Your task to perform on an android device: Open maps Image 0: 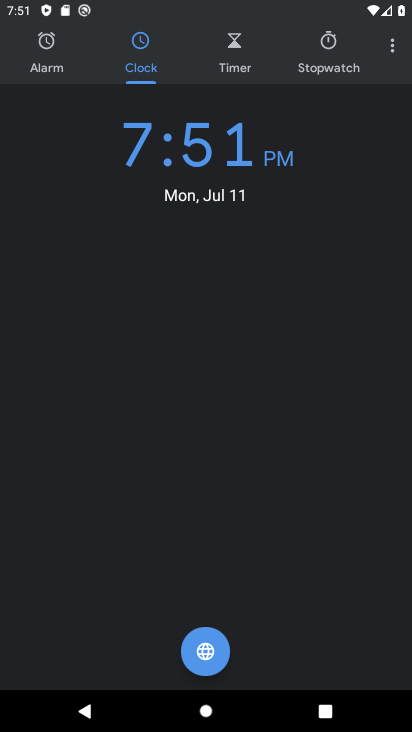
Step 0: press home button
Your task to perform on an android device: Open maps Image 1: 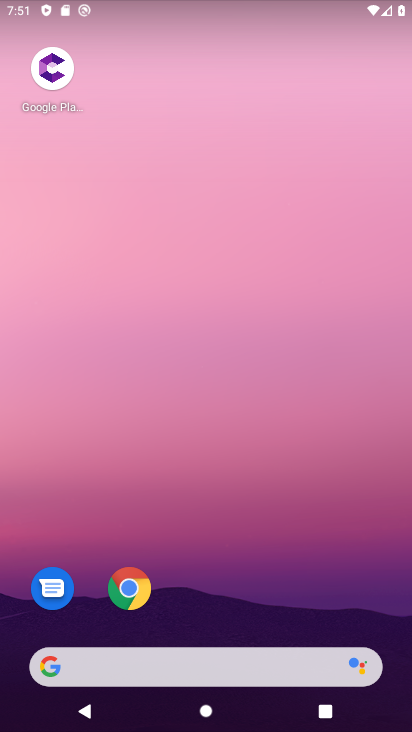
Step 1: drag from (270, 621) to (238, 101)
Your task to perform on an android device: Open maps Image 2: 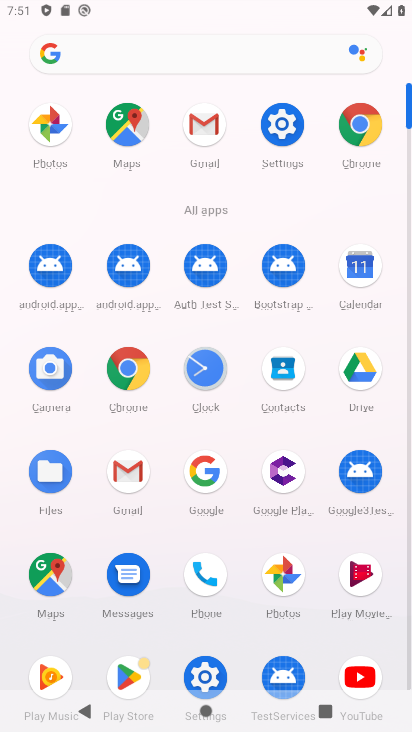
Step 2: click (138, 131)
Your task to perform on an android device: Open maps Image 3: 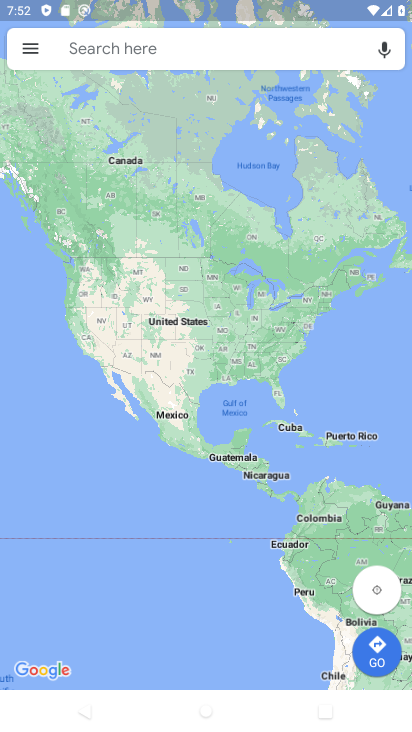
Step 3: task complete